Your task to perform on an android device: change the clock display to show seconds Image 0: 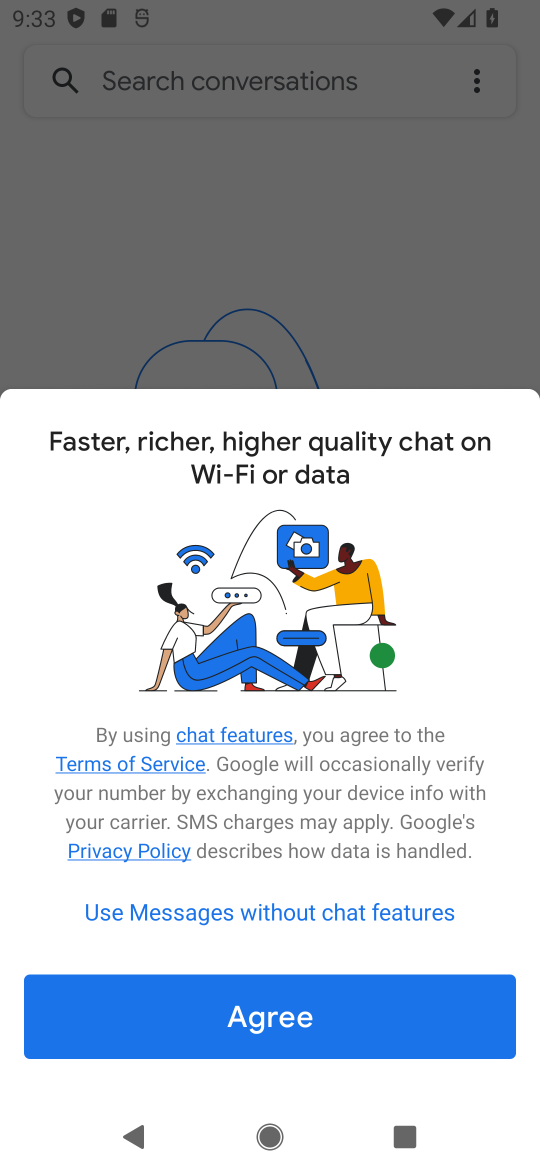
Step 0: press home button
Your task to perform on an android device: change the clock display to show seconds Image 1: 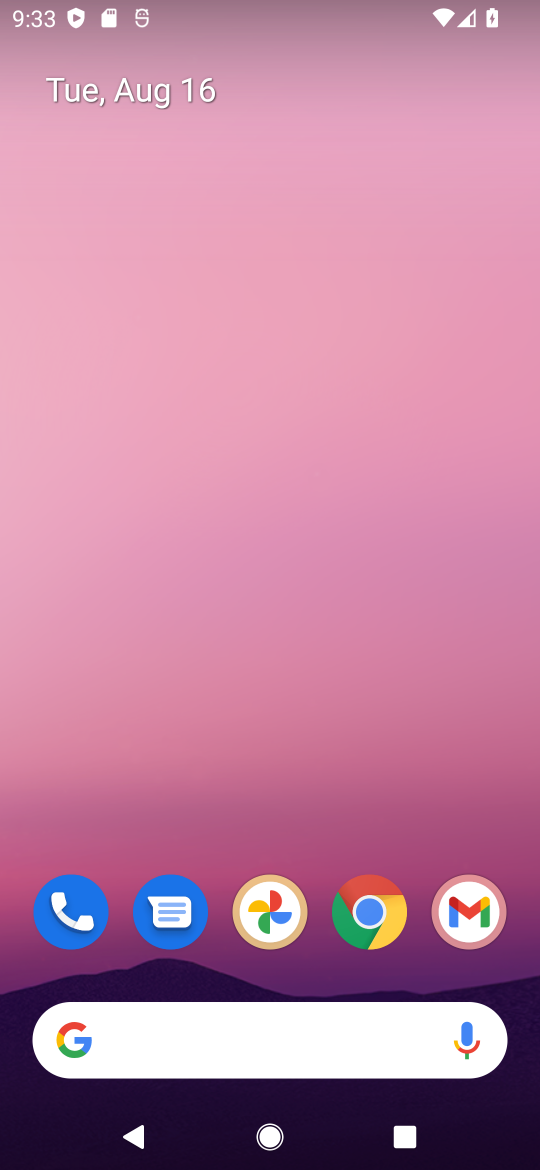
Step 1: drag from (276, 829) to (264, 6)
Your task to perform on an android device: change the clock display to show seconds Image 2: 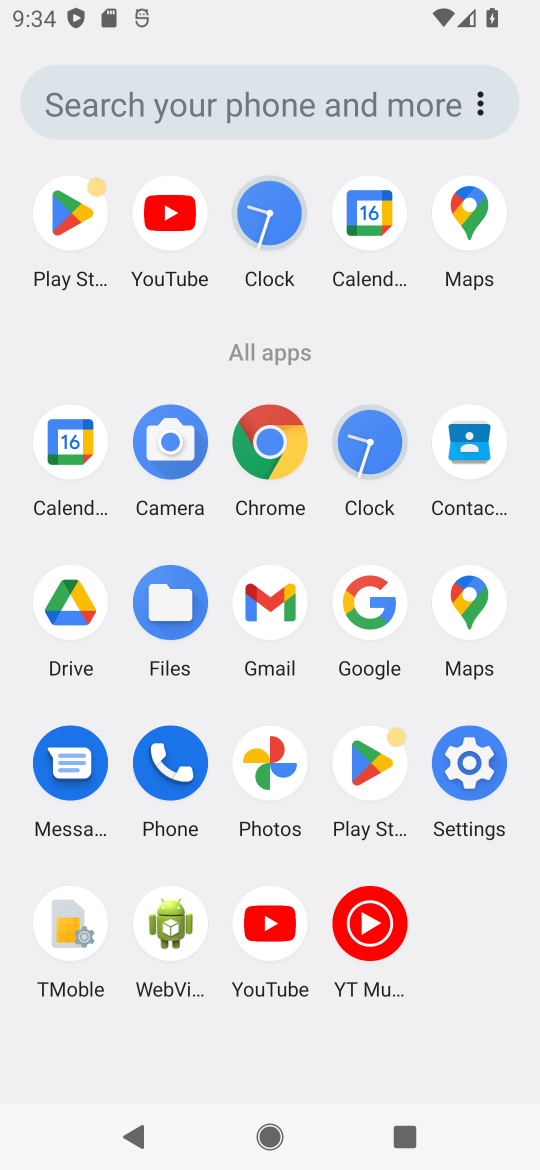
Step 2: click (267, 201)
Your task to perform on an android device: change the clock display to show seconds Image 3: 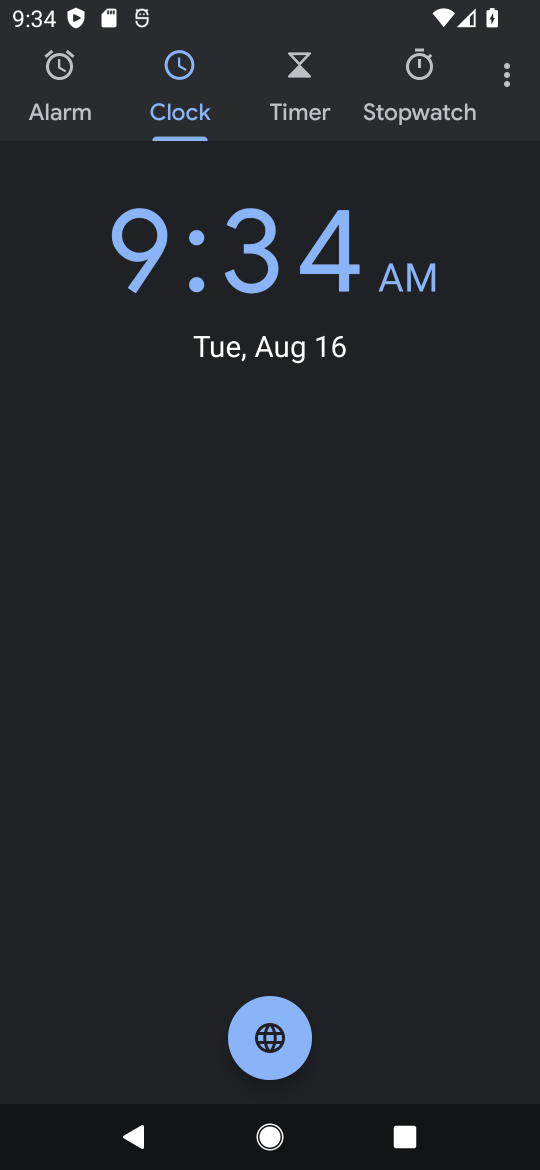
Step 3: click (519, 82)
Your task to perform on an android device: change the clock display to show seconds Image 4: 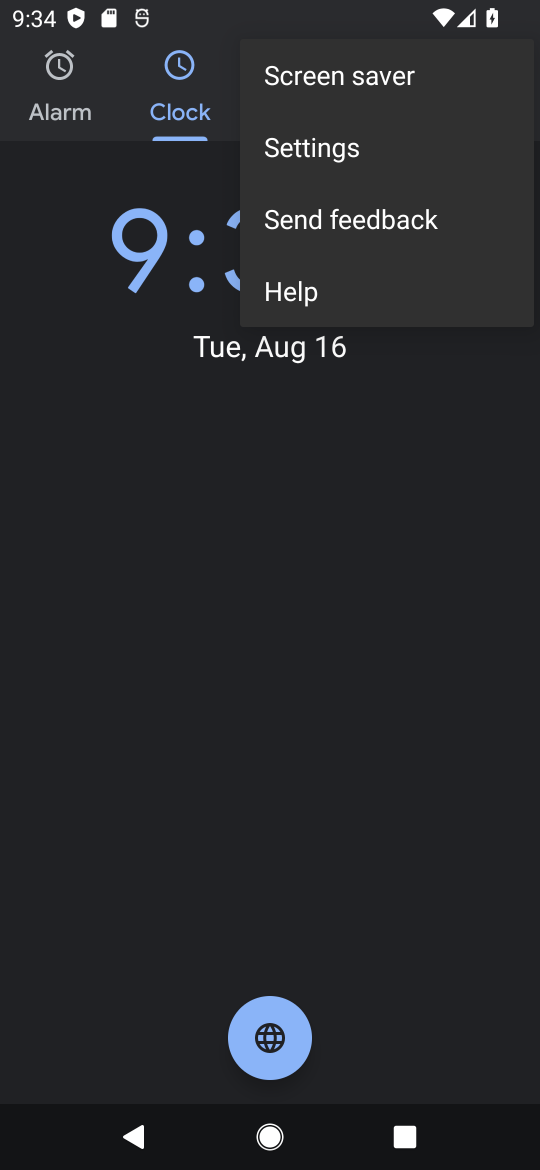
Step 4: click (383, 161)
Your task to perform on an android device: change the clock display to show seconds Image 5: 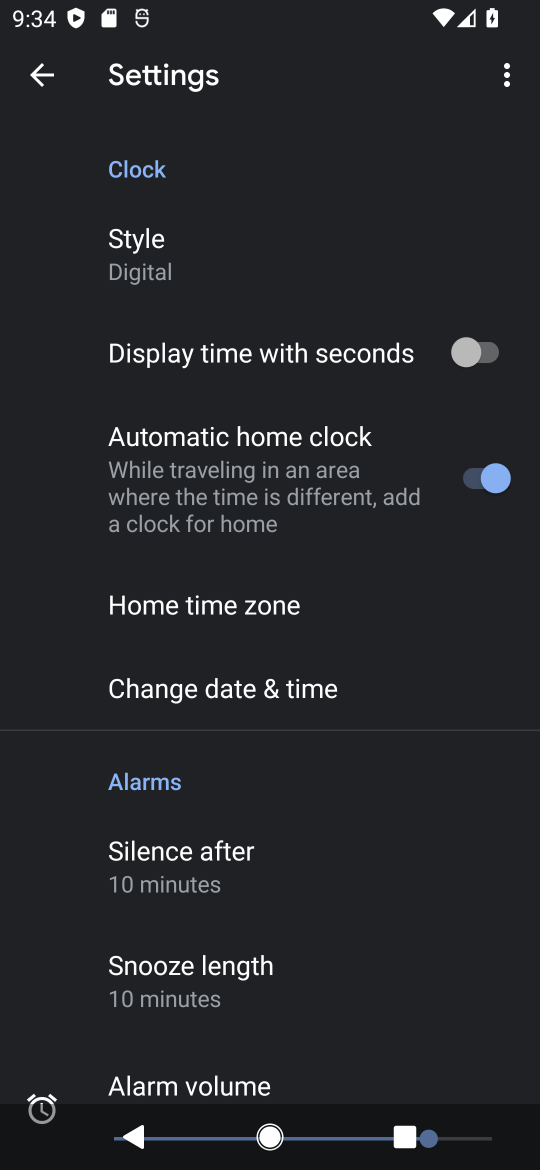
Step 5: click (495, 357)
Your task to perform on an android device: change the clock display to show seconds Image 6: 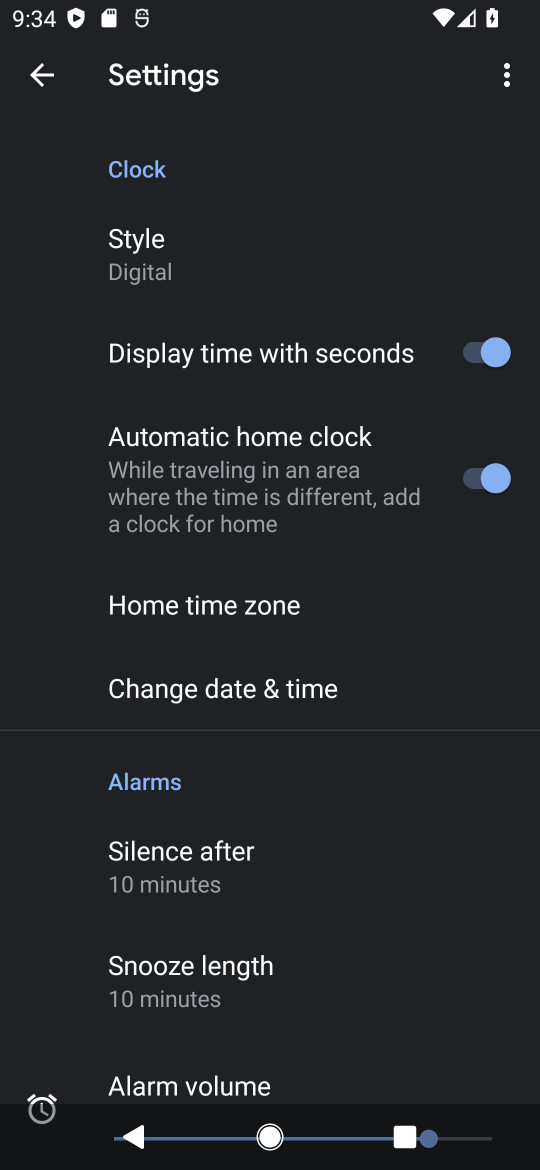
Step 6: task complete